Your task to perform on an android device: check battery use Image 0: 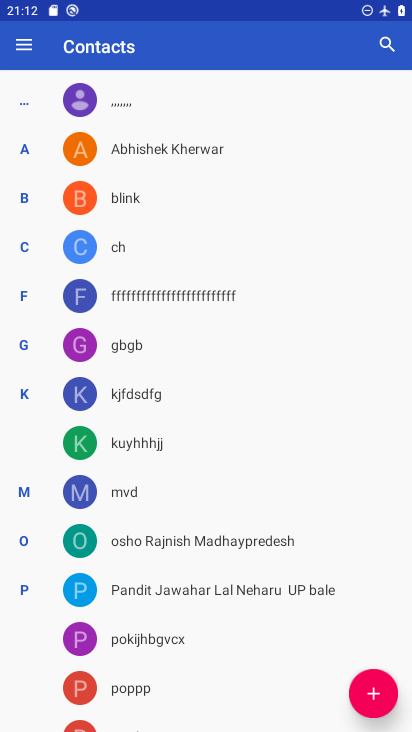
Step 0: press home button
Your task to perform on an android device: check battery use Image 1: 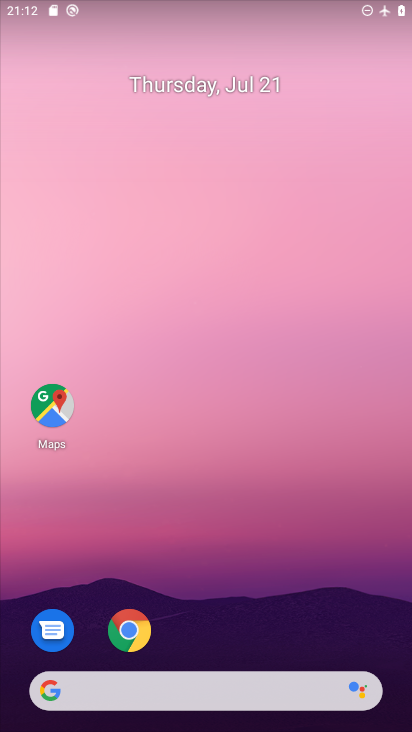
Step 1: drag from (299, 630) to (304, 132)
Your task to perform on an android device: check battery use Image 2: 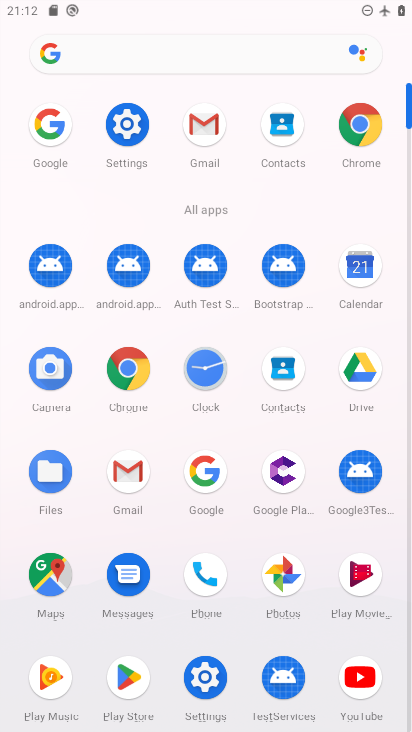
Step 2: click (109, 121)
Your task to perform on an android device: check battery use Image 3: 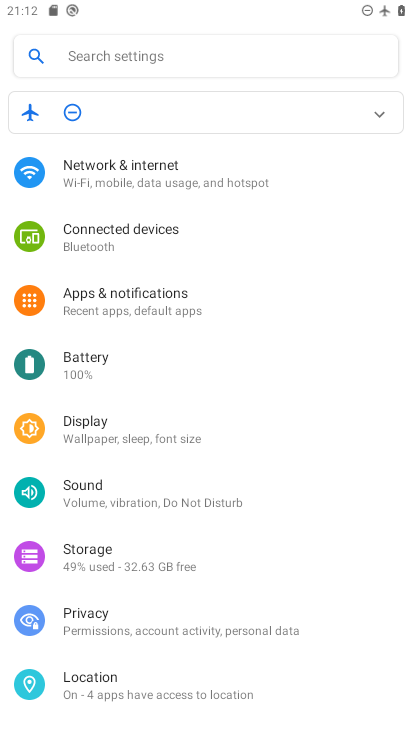
Step 3: click (157, 368)
Your task to perform on an android device: check battery use Image 4: 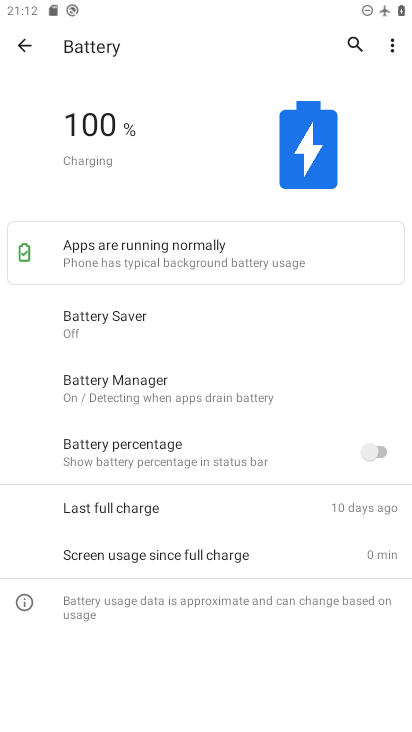
Step 4: click (401, 49)
Your task to perform on an android device: check battery use Image 5: 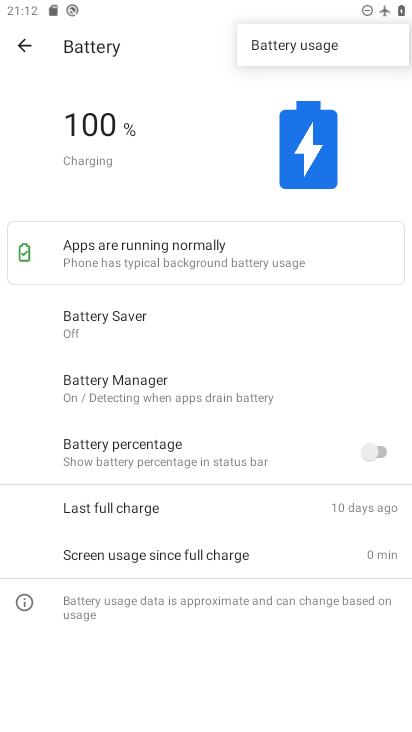
Step 5: click (359, 44)
Your task to perform on an android device: check battery use Image 6: 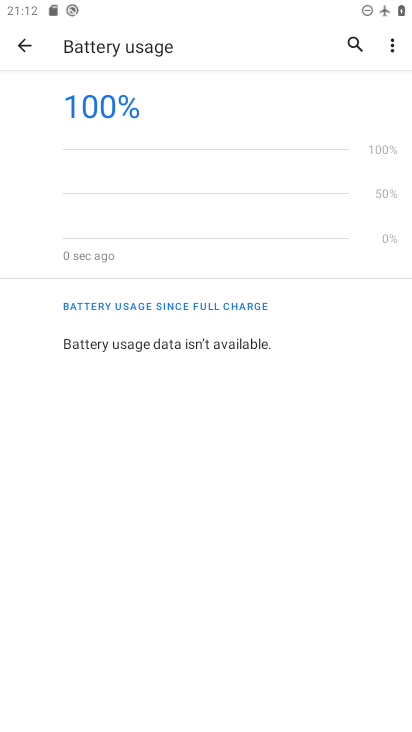
Step 6: task complete